Your task to perform on an android device: change timer sound Image 0: 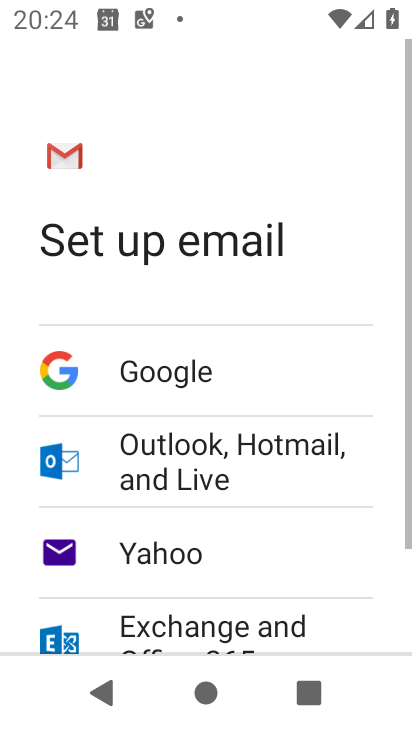
Step 0: press home button
Your task to perform on an android device: change timer sound Image 1: 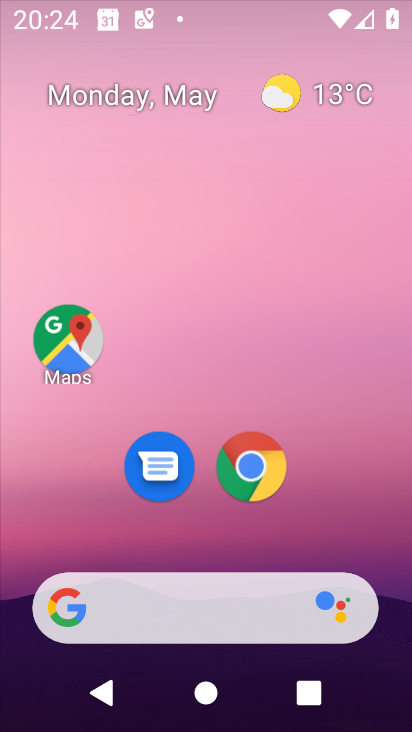
Step 1: drag from (292, 523) to (283, 293)
Your task to perform on an android device: change timer sound Image 2: 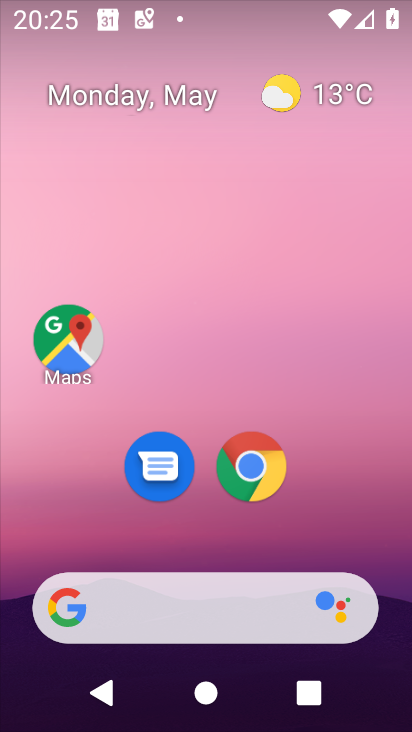
Step 2: drag from (294, 497) to (349, 218)
Your task to perform on an android device: change timer sound Image 3: 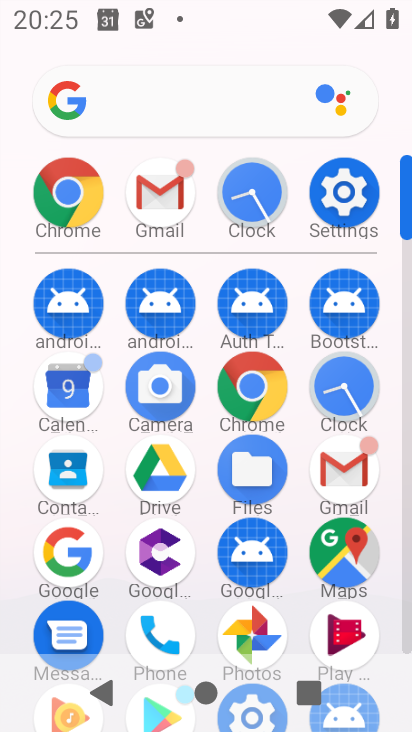
Step 3: click (262, 200)
Your task to perform on an android device: change timer sound Image 4: 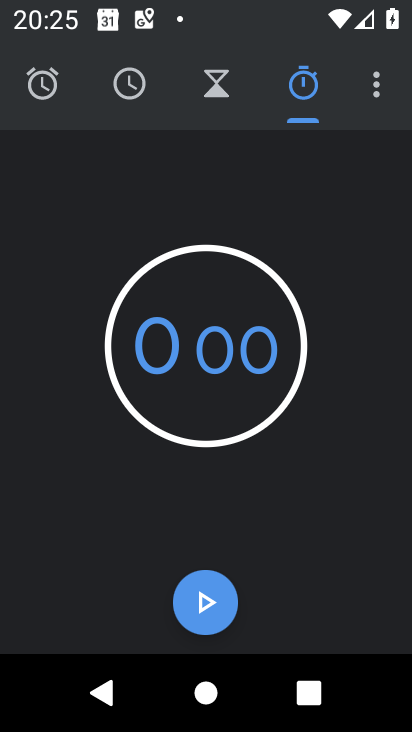
Step 4: click (379, 82)
Your task to perform on an android device: change timer sound Image 5: 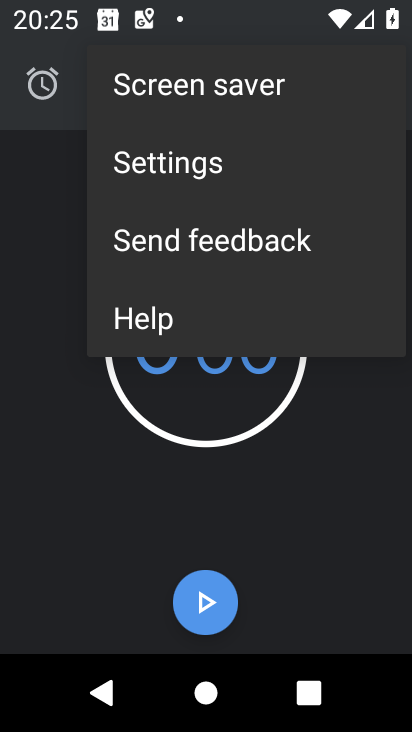
Step 5: click (238, 173)
Your task to perform on an android device: change timer sound Image 6: 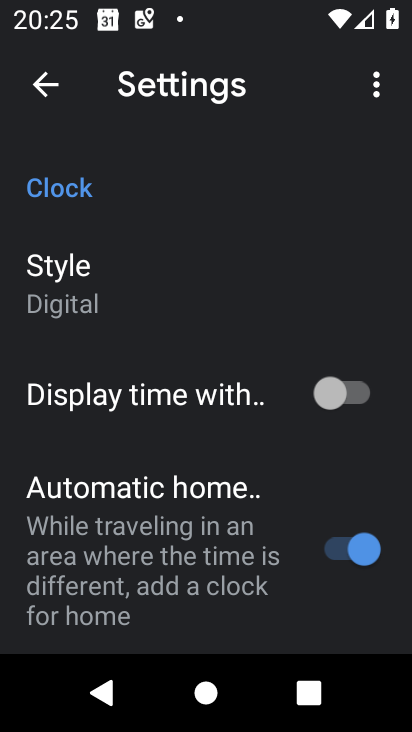
Step 6: drag from (187, 574) to (278, 191)
Your task to perform on an android device: change timer sound Image 7: 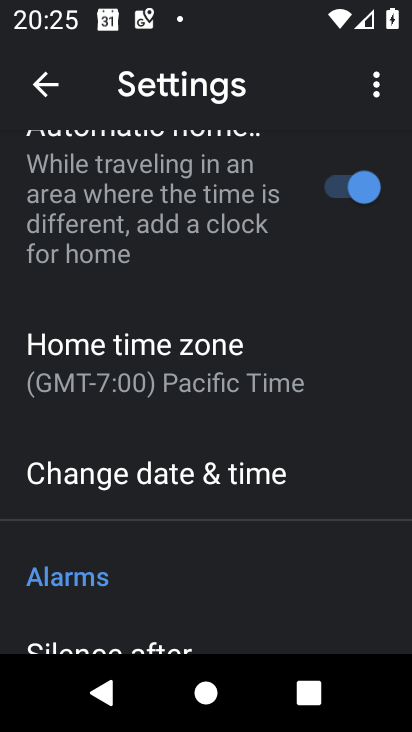
Step 7: drag from (149, 554) to (276, 196)
Your task to perform on an android device: change timer sound Image 8: 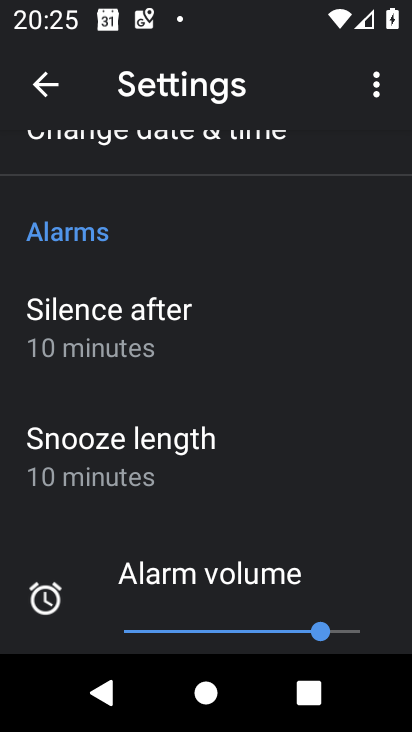
Step 8: drag from (142, 530) to (266, 225)
Your task to perform on an android device: change timer sound Image 9: 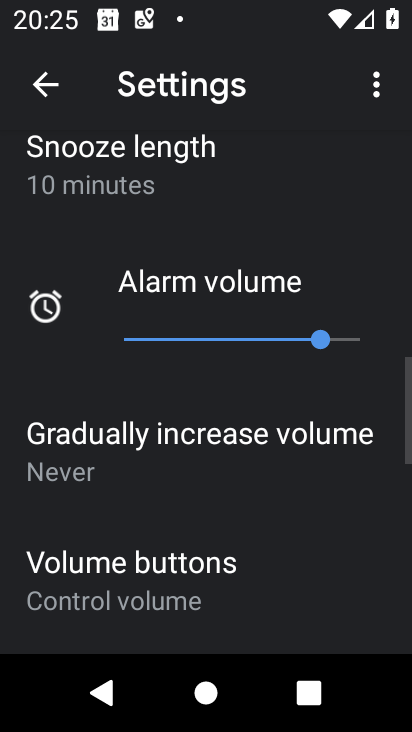
Step 9: drag from (254, 509) to (312, 137)
Your task to perform on an android device: change timer sound Image 10: 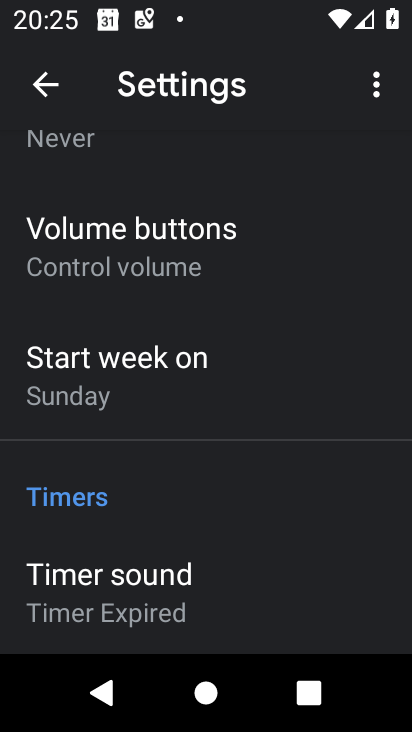
Step 10: click (143, 585)
Your task to perform on an android device: change timer sound Image 11: 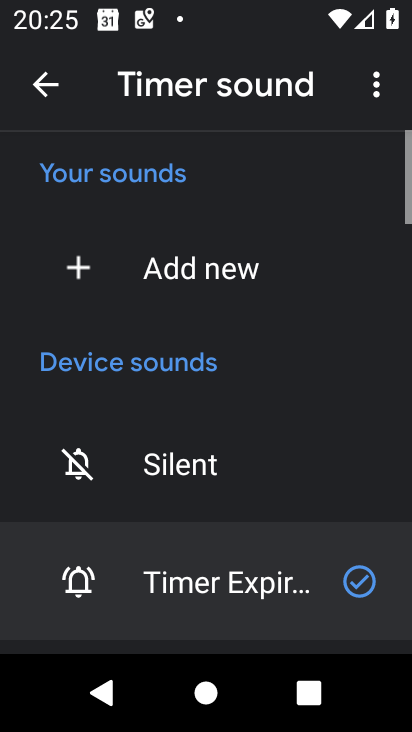
Step 11: drag from (220, 484) to (262, 126)
Your task to perform on an android device: change timer sound Image 12: 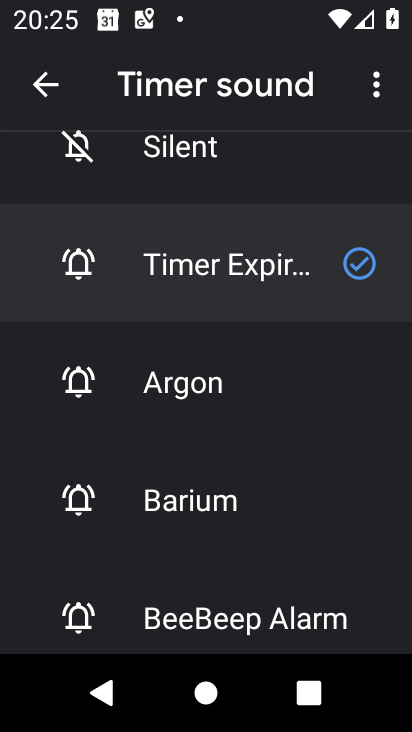
Step 12: click (277, 632)
Your task to perform on an android device: change timer sound Image 13: 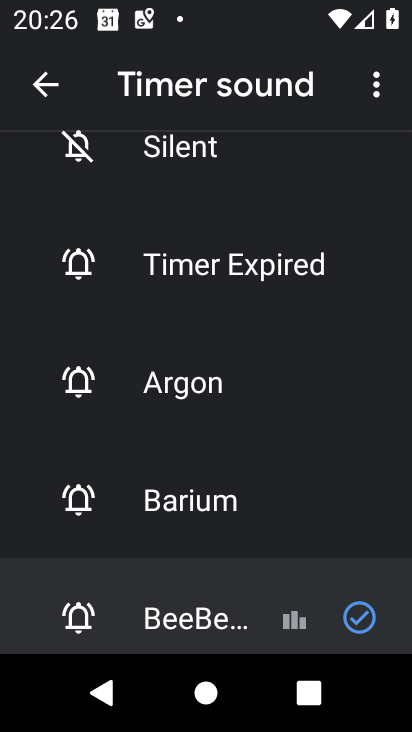
Step 13: task complete